Your task to perform on an android device: Open calendar and show me the third week of next month Image 0: 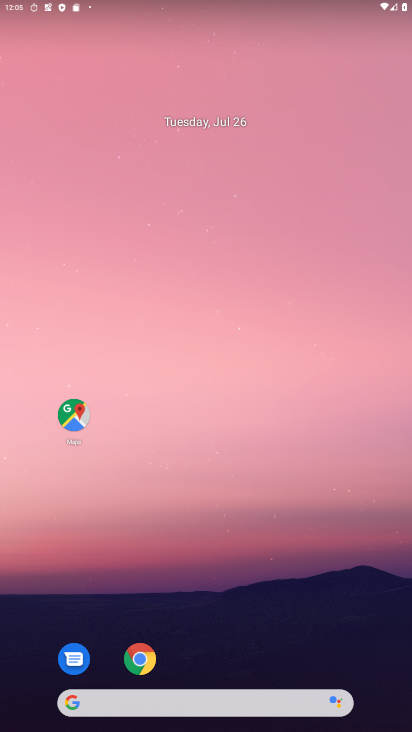
Step 0: drag from (191, 563) to (258, 18)
Your task to perform on an android device: Open calendar and show me the third week of next month Image 1: 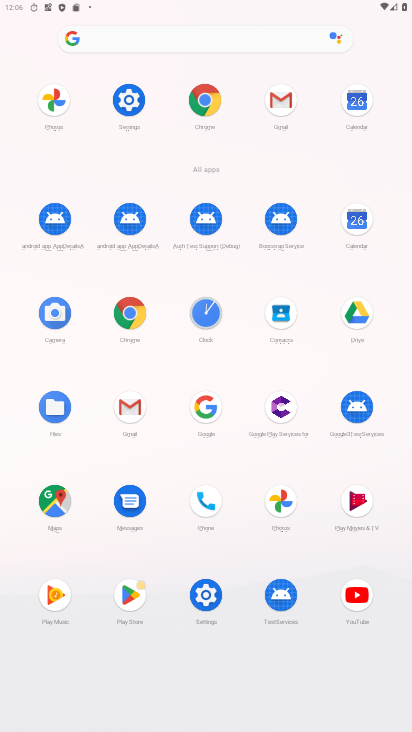
Step 1: click (350, 225)
Your task to perform on an android device: Open calendar and show me the third week of next month Image 2: 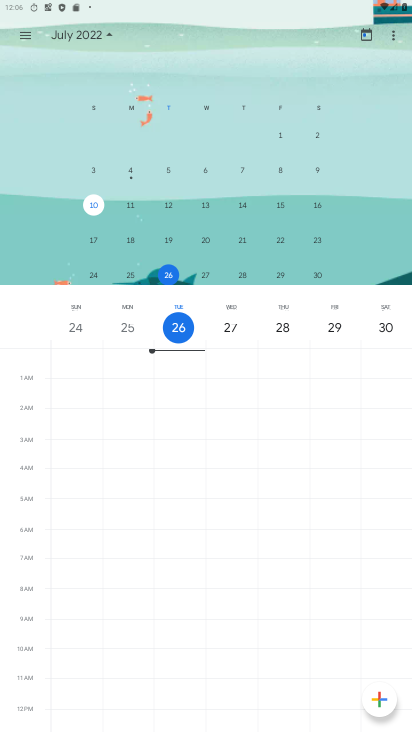
Step 2: click (42, 46)
Your task to perform on an android device: Open calendar and show me the third week of next month Image 3: 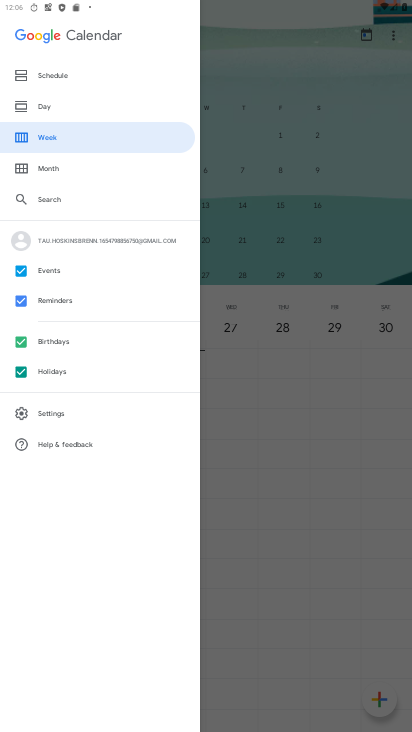
Step 3: click (40, 138)
Your task to perform on an android device: Open calendar and show me the third week of next month Image 4: 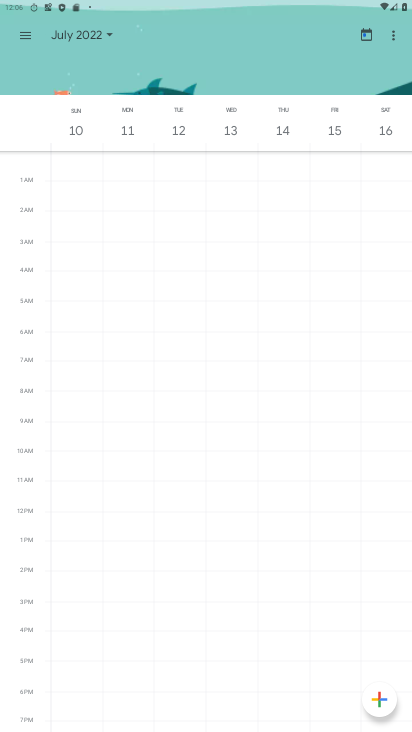
Step 4: click (74, 32)
Your task to perform on an android device: Open calendar and show me the third week of next month Image 5: 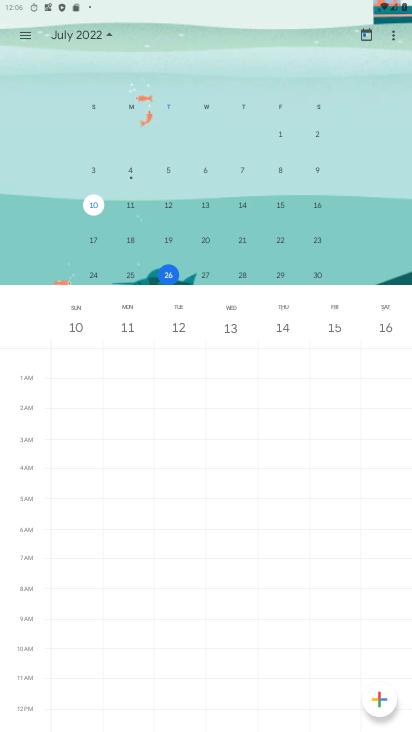
Step 5: drag from (326, 198) to (46, 189)
Your task to perform on an android device: Open calendar and show me the third week of next month Image 6: 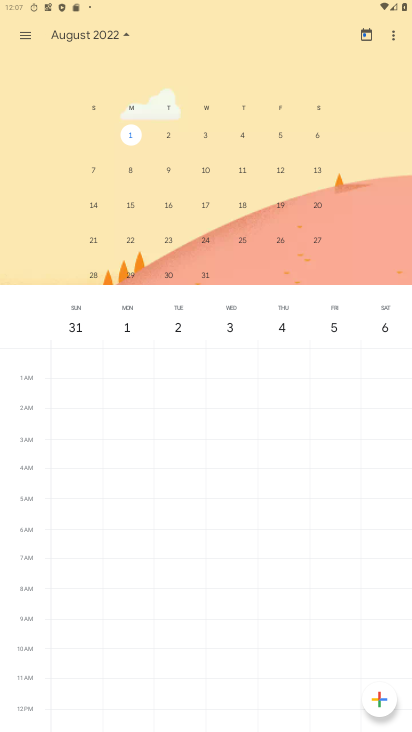
Step 6: click (90, 205)
Your task to perform on an android device: Open calendar and show me the third week of next month Image 7: 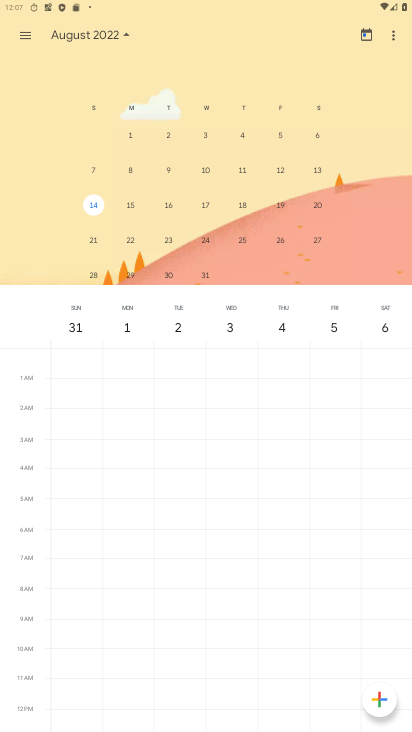
Step 7: click (90, 205)
Your task to perform on an android device: Open calendar and show me the third week of next month Image 8: 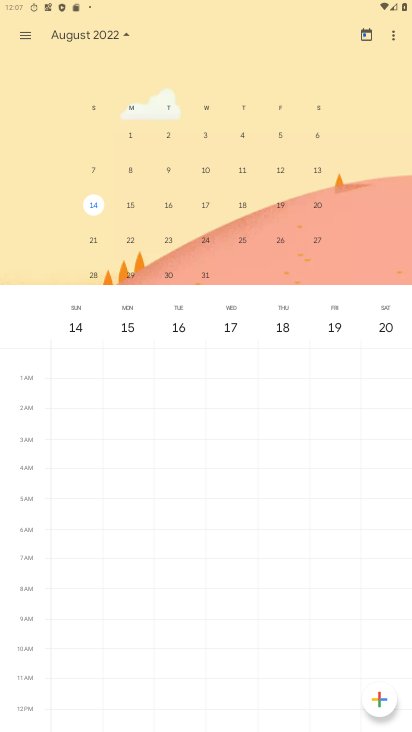
Step 8: task complete